Your task to perform on an android device: turn off airplane mode Image 0: 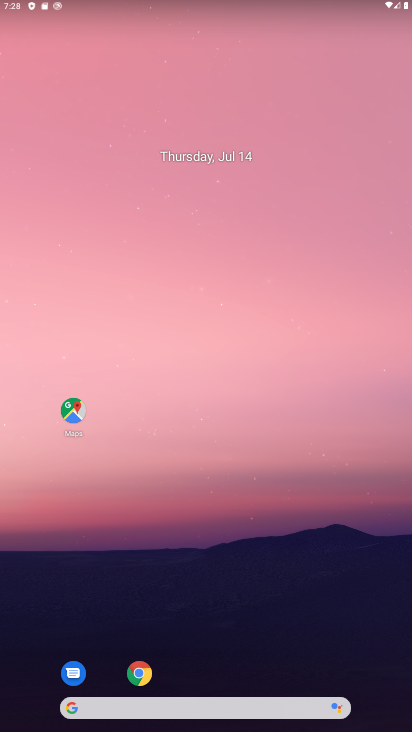
Step 0: drag from (340, 630) to (337, 147)
Your task to perform on an android device: turn off airplane mode Image 1: 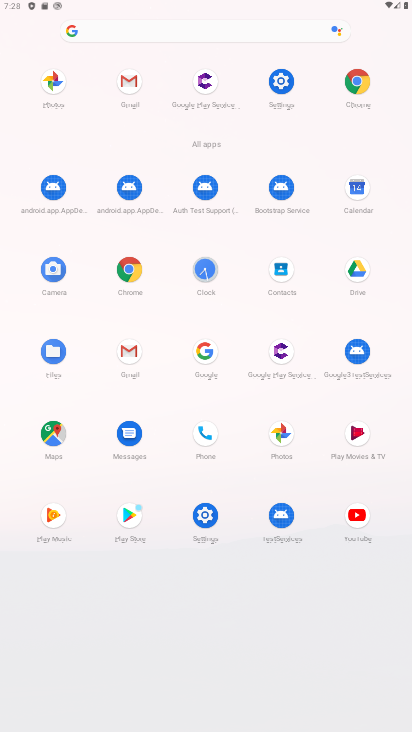
Step 1: click (202, 518)
Your task to perform on an android device: turn off airplane mode Image 2: 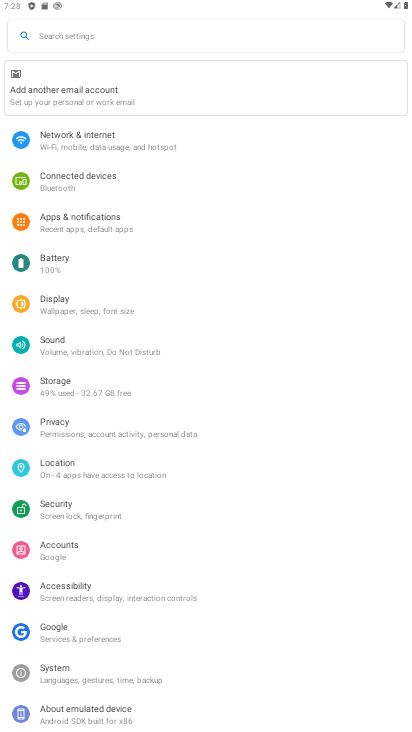
Step 2: drag from (296, 557) to (293, 442)
Your task to perform on an android device: turn off airplane mode Image 3: 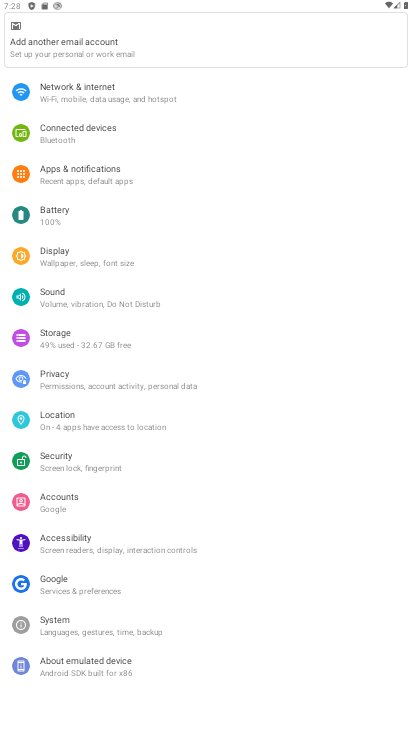
Step 3: drag from (297, 330) to (313, 427)
Your task to perform on an android device: turn off airplane mode Image 4: 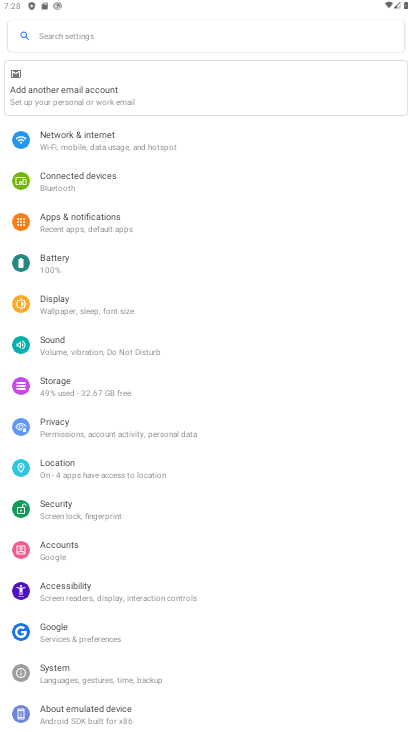
Step 4: click (172, 148)
Your task to perform on an android device: turn off airplane mode Image 5: 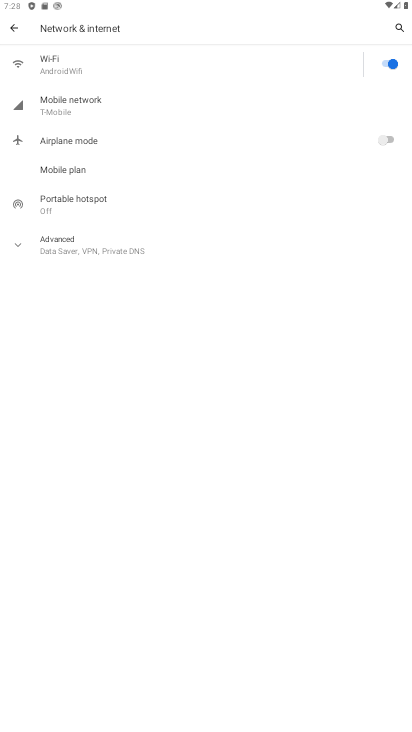
Step 5: task complete